Your task to perform on an android device: turn off javascript in the chrome app Image 0: 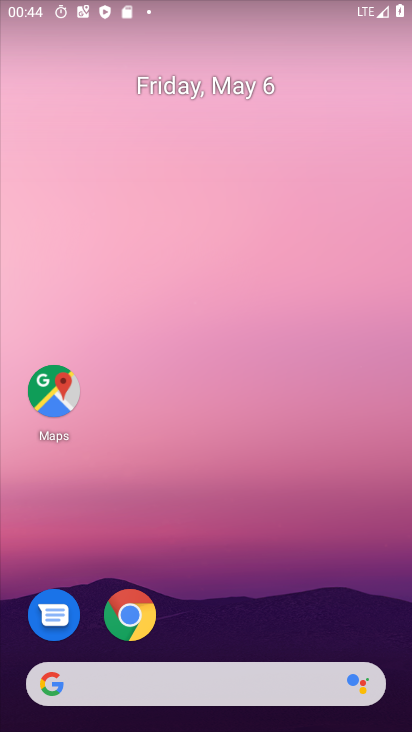
Step 0: click (125, 608)
Your task to perform on an android device: turn off javascript in the chrome app Image 1: 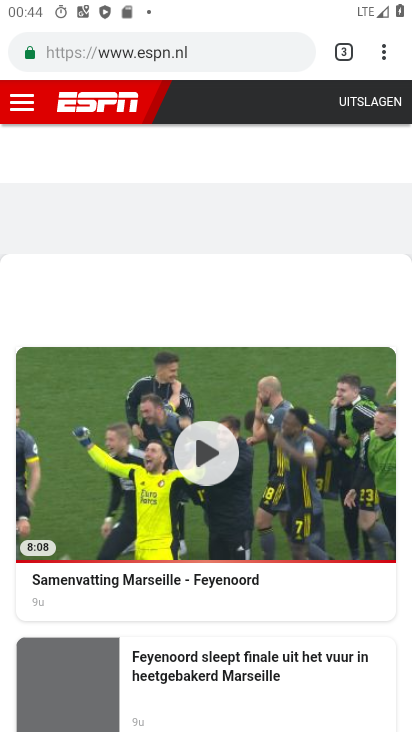
Step 1: click (372, 58)
Your task to perform on an android device: turn off javascript in the chrome app Image 2: 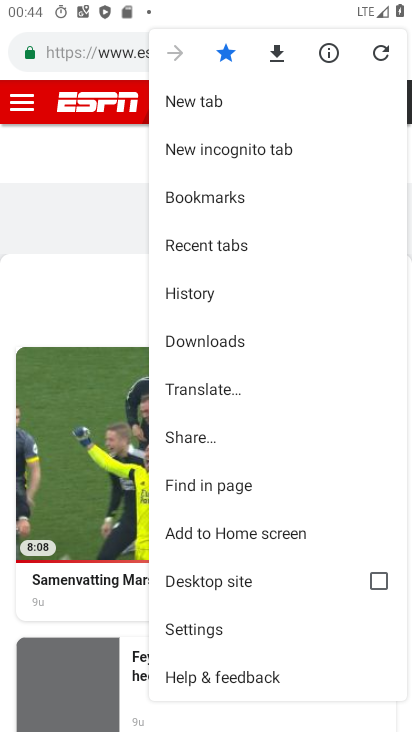
Step 2: click (223, 639)
Your task to perform on an android device: turn off javascript in the chrome app Image 3: 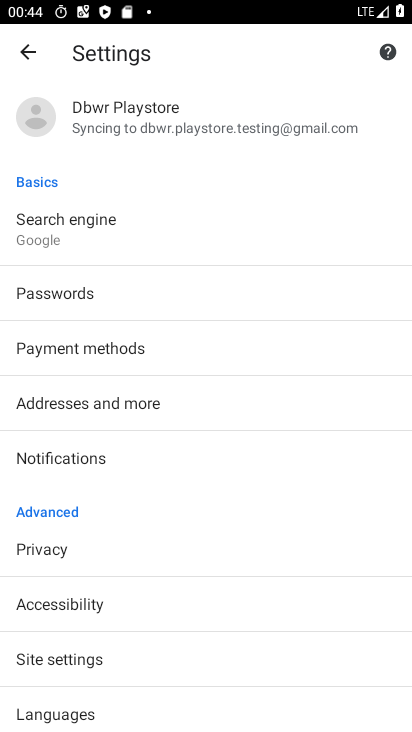
Step 3: click (80, 657)
Your task to perform on an android device: turn off javascript in the chrome app Image 4: 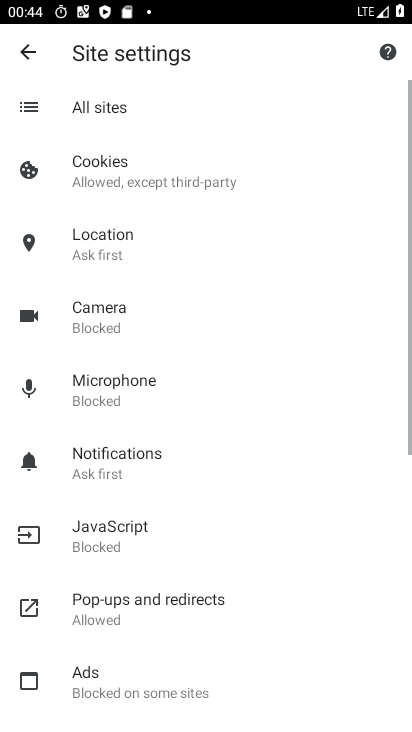
Step 4: click (119, 546)
Your task to perform on an android device: turn off javascript in the chrome app Image 5: 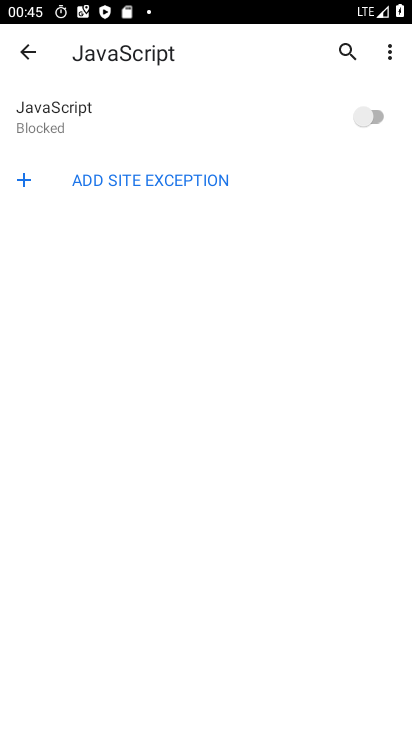
Step 5: task complete